Your task to perform on an android device: set the timer Image 0: 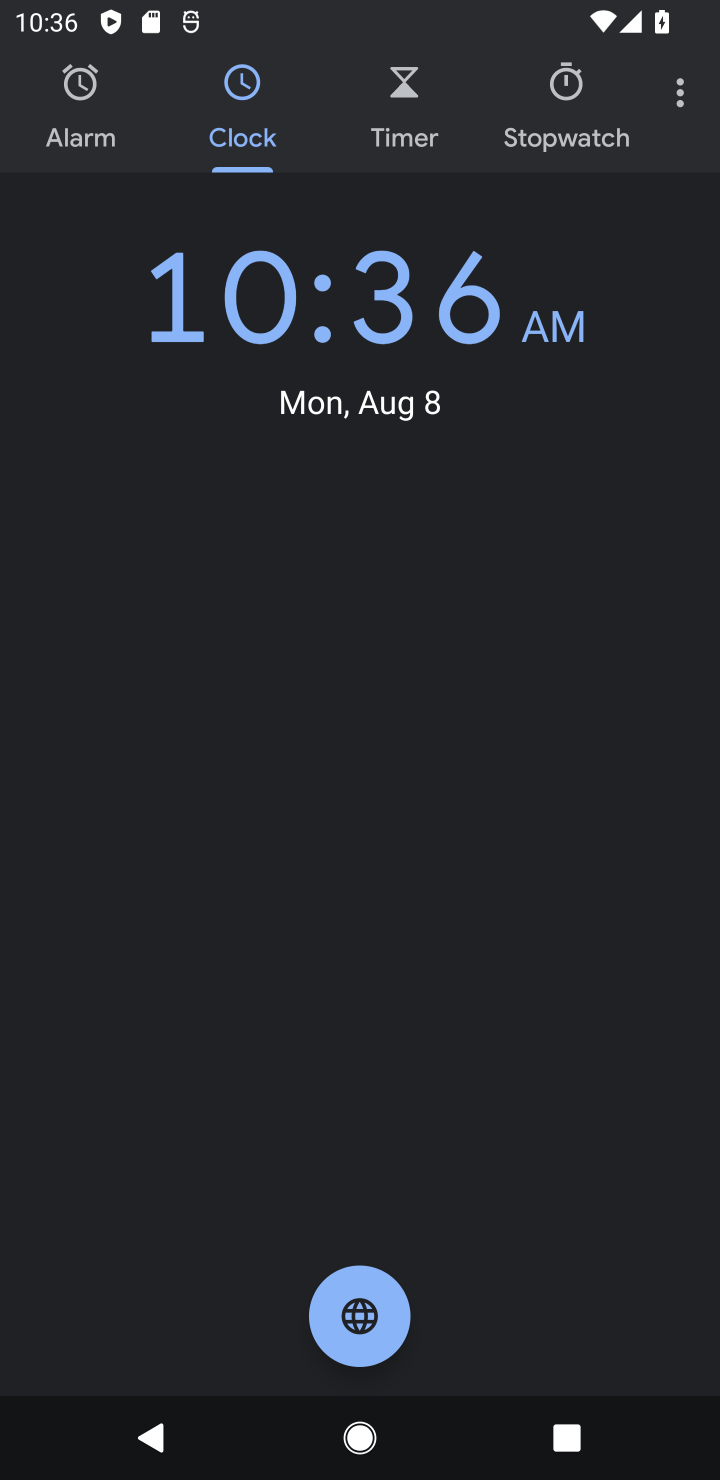
Step 0: press home button
Your task to perform on an android device: set the timer Image 1: 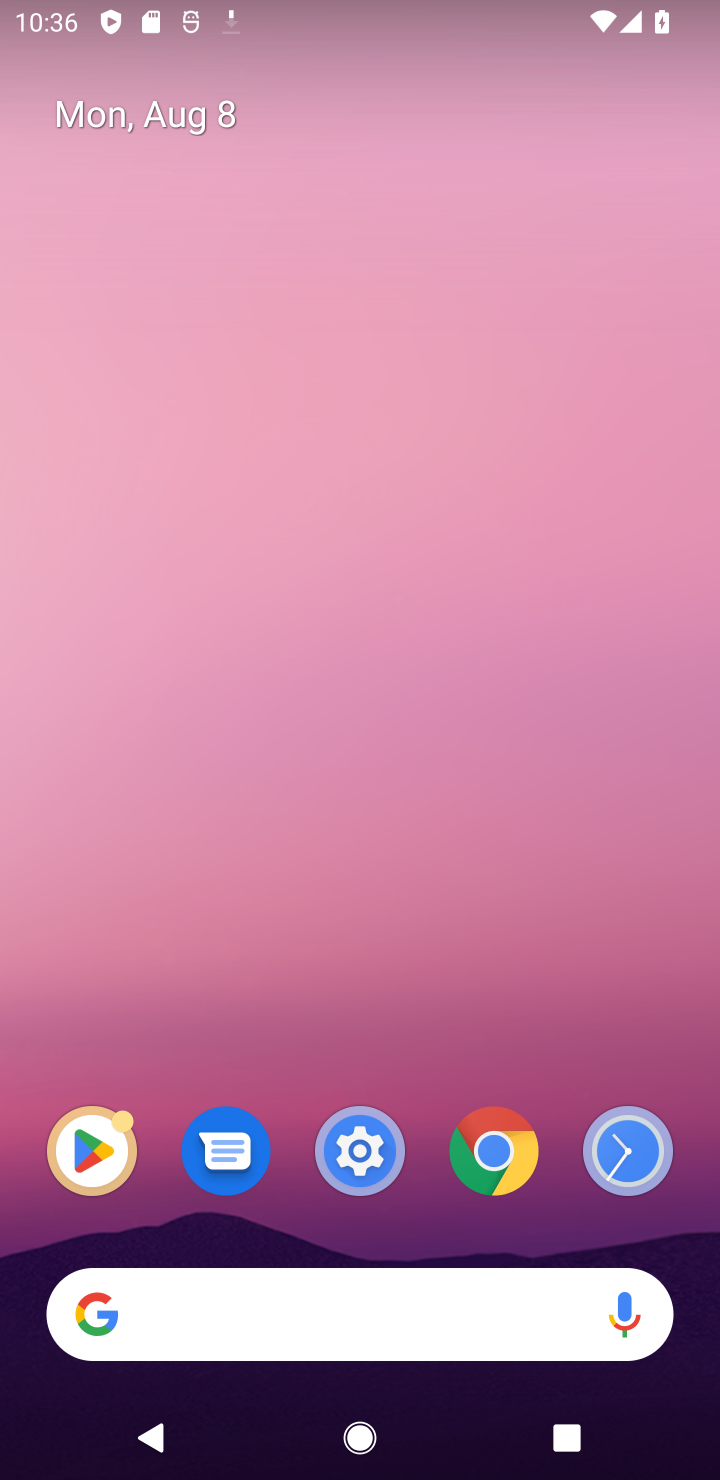
Step 1: click (658, 1146)
Your task to perform on an android device: set the timer Image 2: 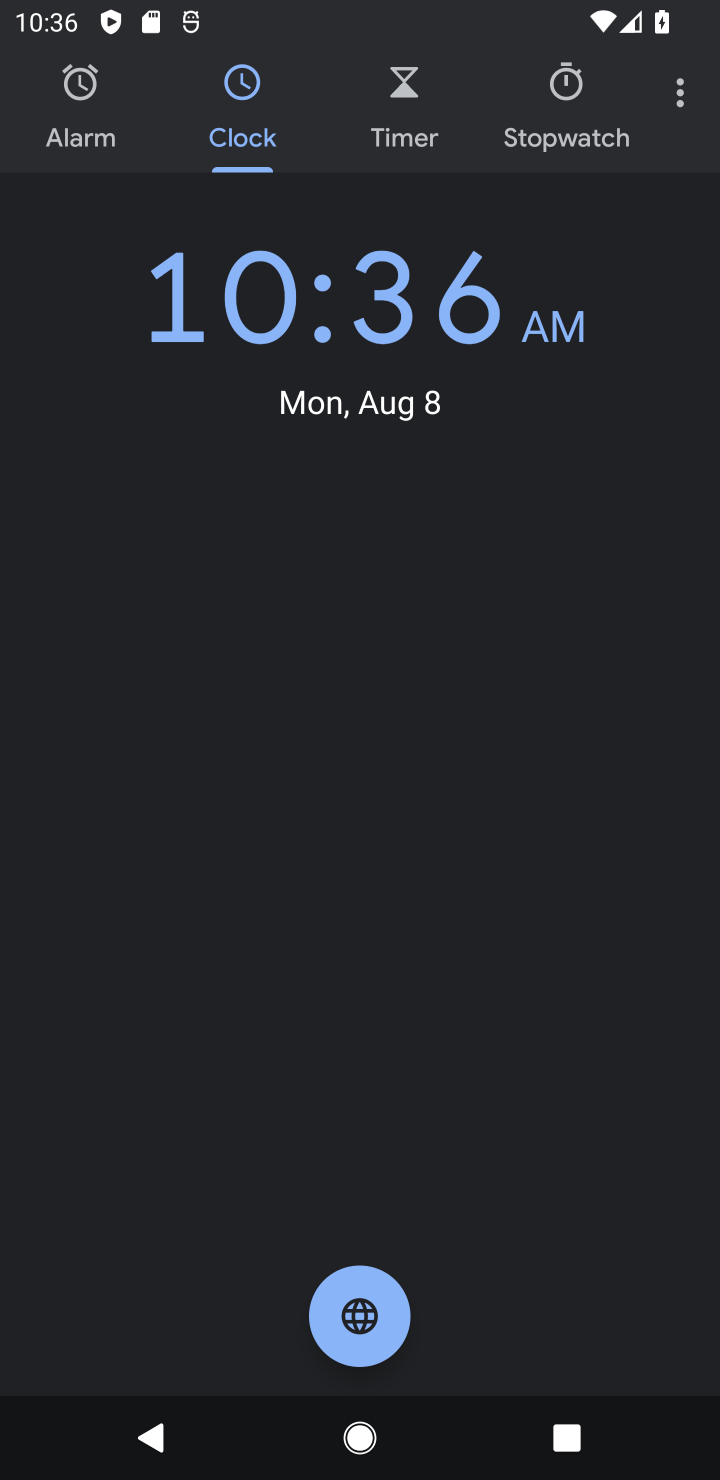
Step 2: click (406, 137)
Your task to perform on an android device: set the timer Image 3: 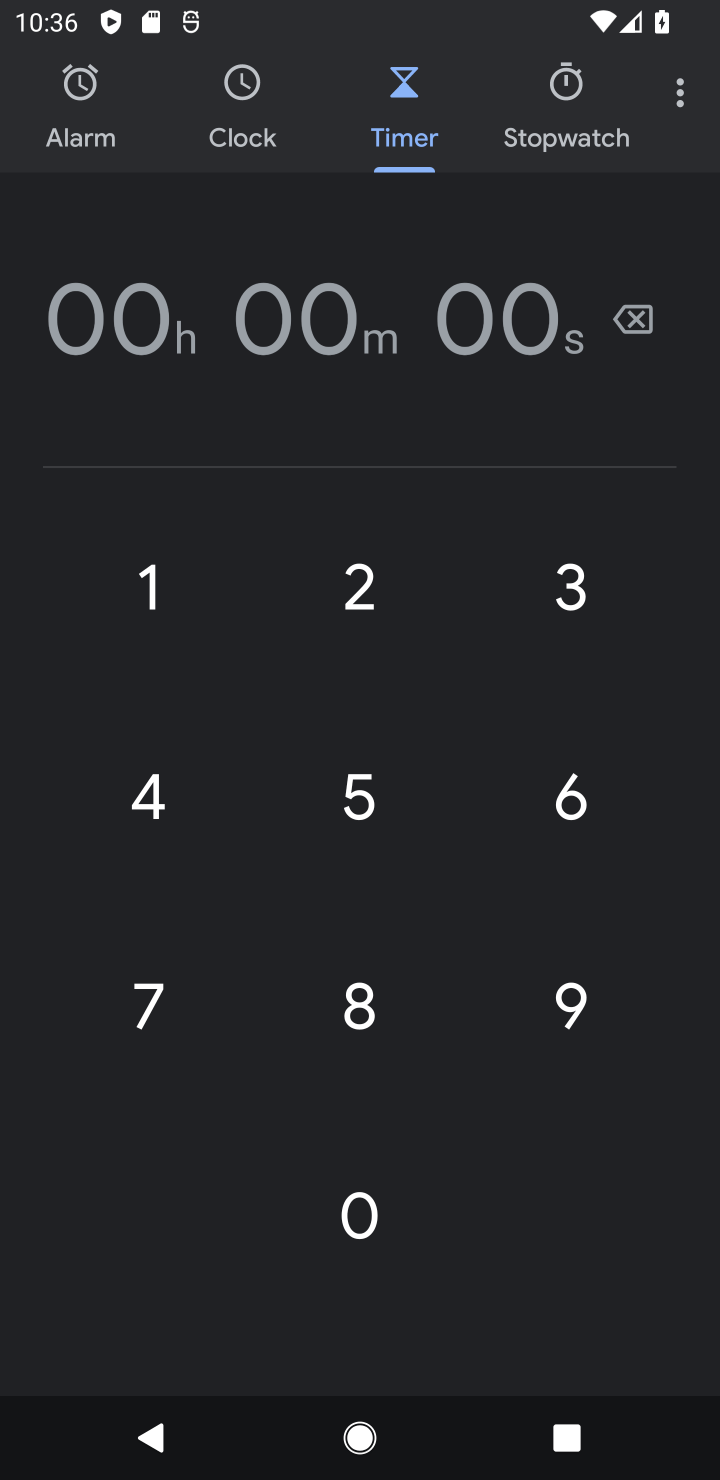
Step 3: click (332, 787)
Your task to perform on an android device: set the timer Image 4: 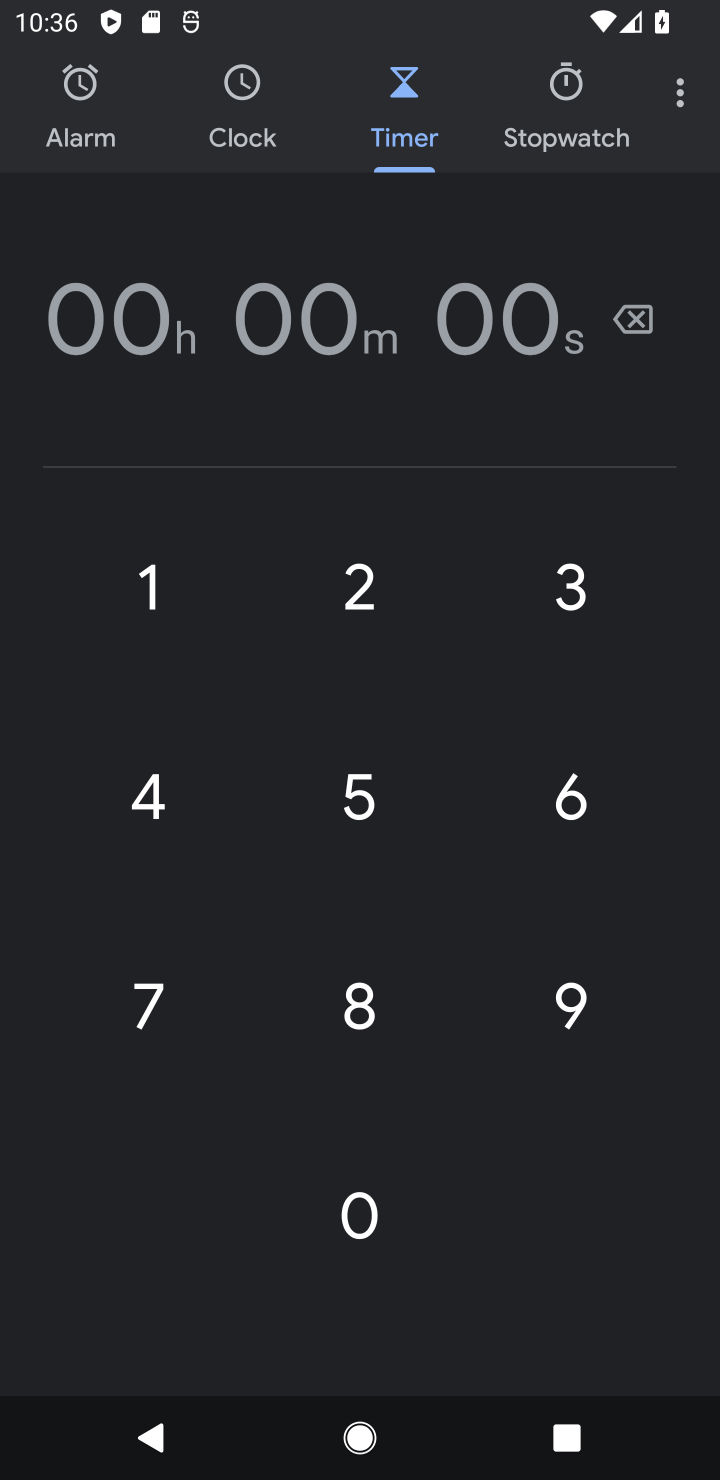
Step 4: click (332, 787)
Your task to perform on an android device: set the timer Image 5: 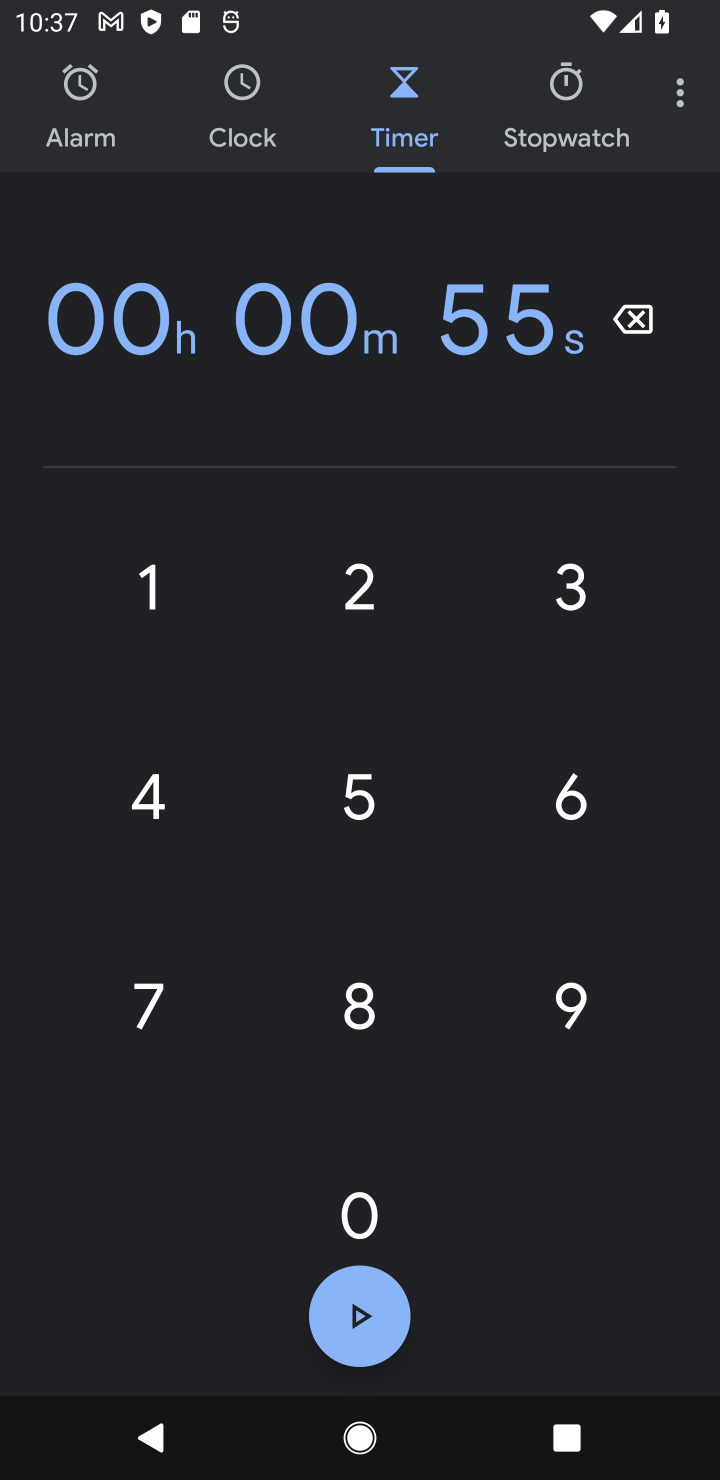
Step 5: click (357, 807)
Your task to perform on an android device: set the timer Image 6: 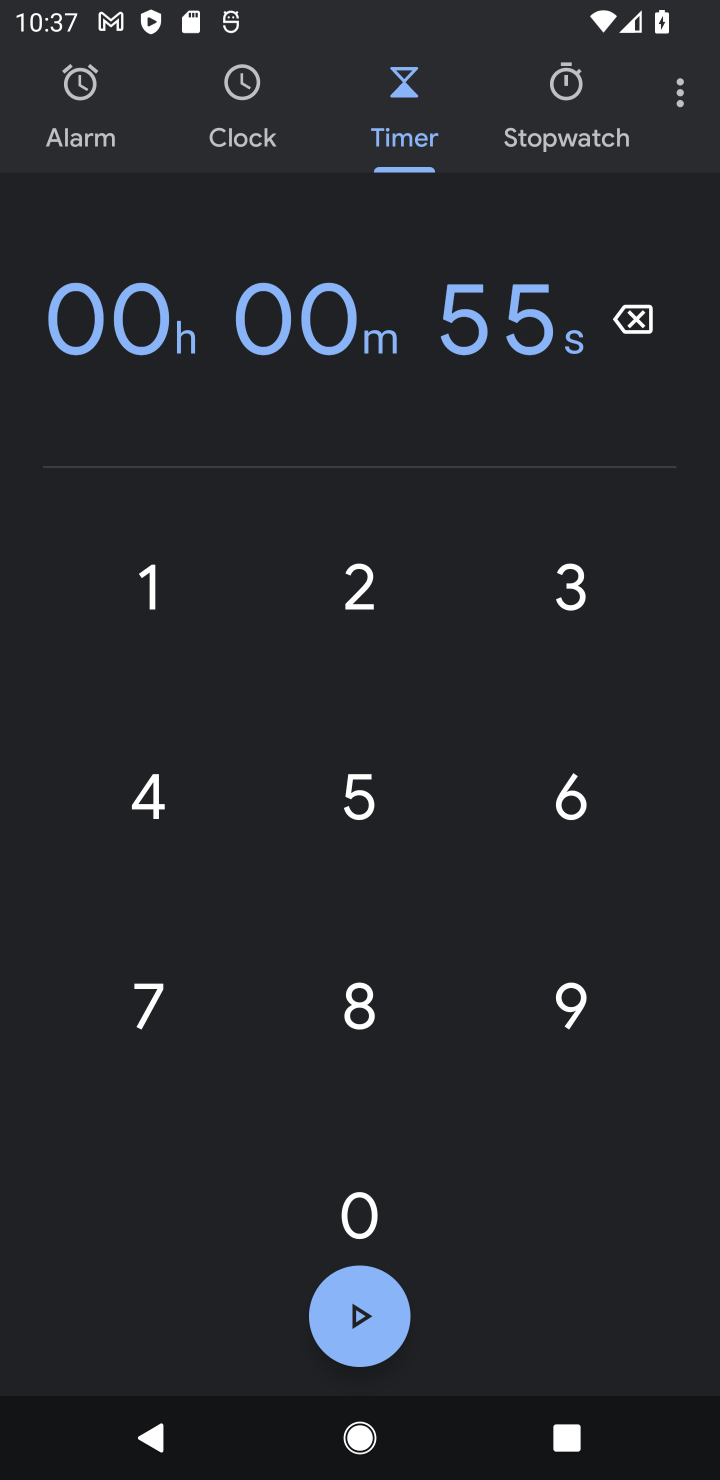
Step 6: click (357, 807)
Your task to perform on an android device: set the timer Image 7: 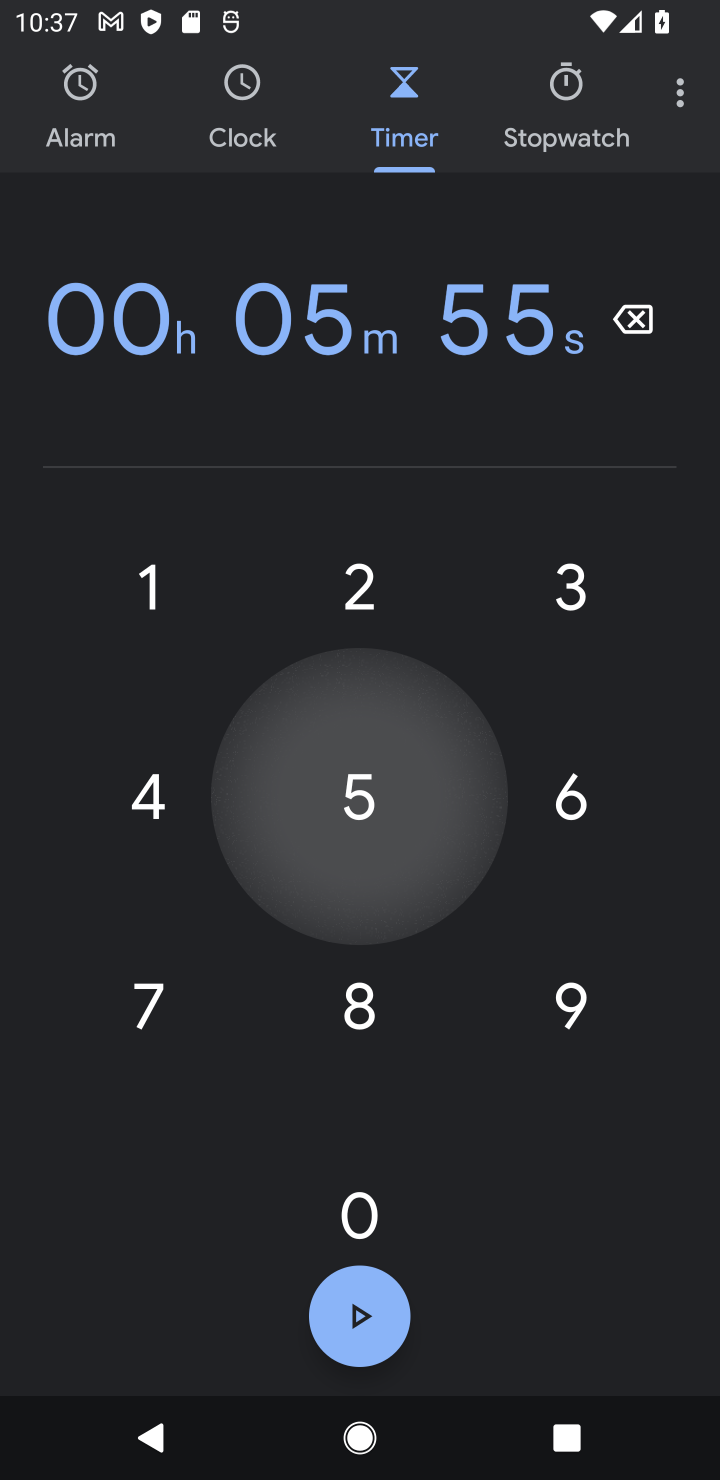
Step 7: click (357, 807)
Your task to perform on an android device: set the timer Image 8: 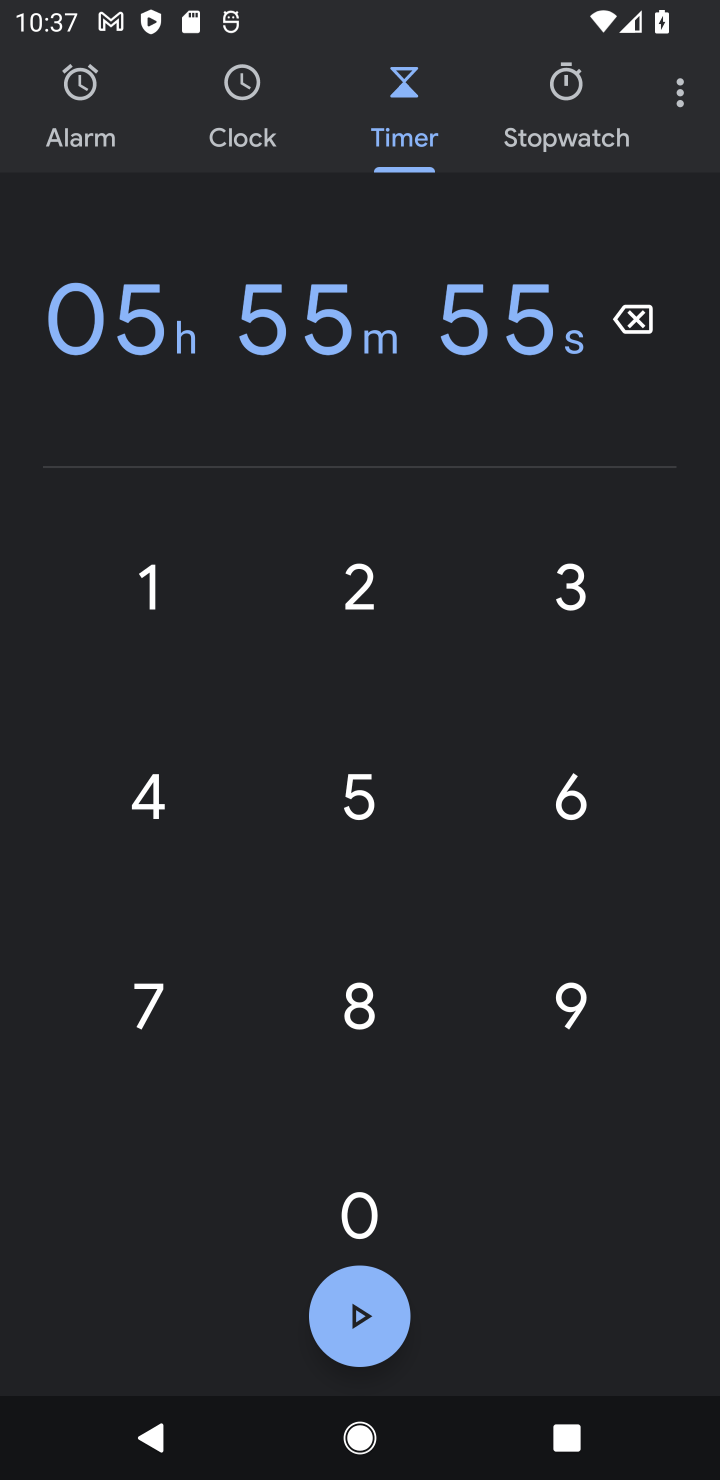
Step 8: click (382, 1300)
Your task to perform on an android device: set the timer Image 9: 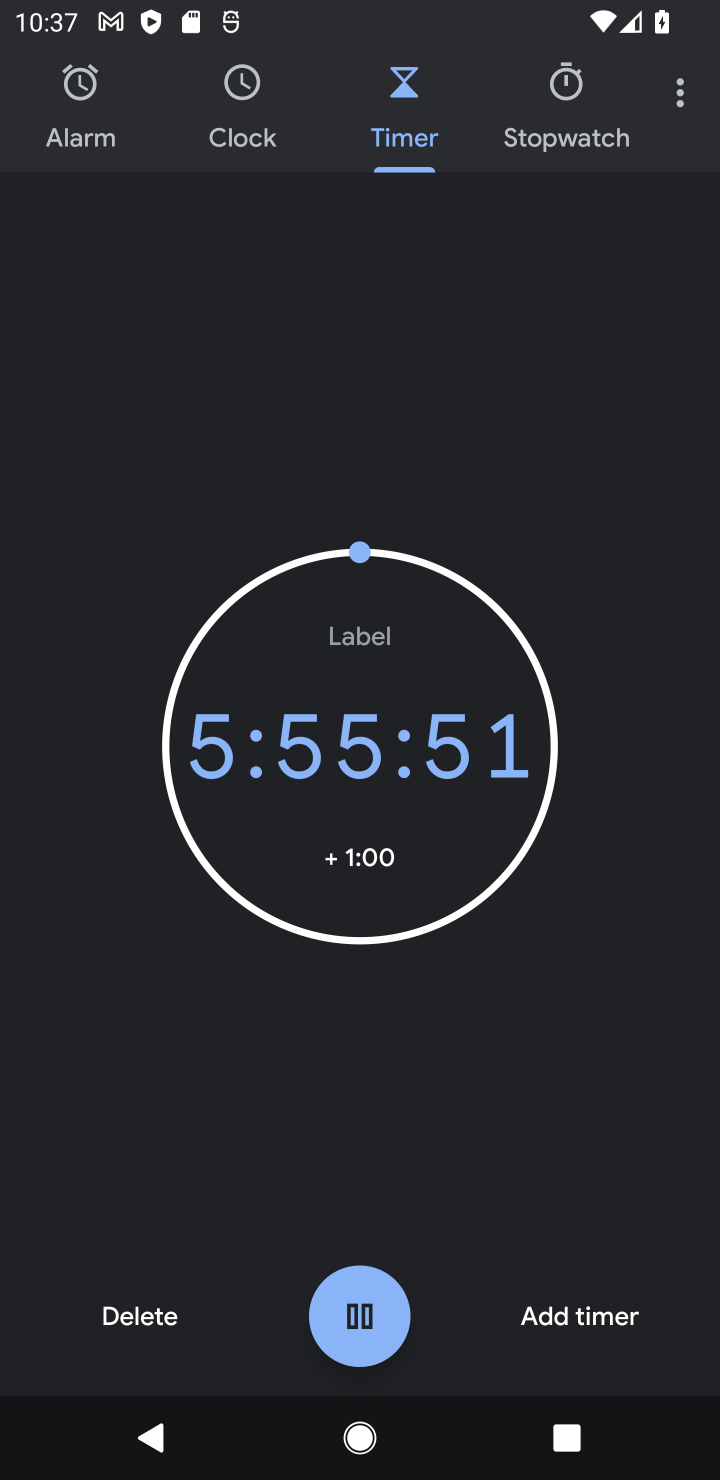
Step 9: task complete